Your task to perform on an android device: change text size in settings app Image 0: 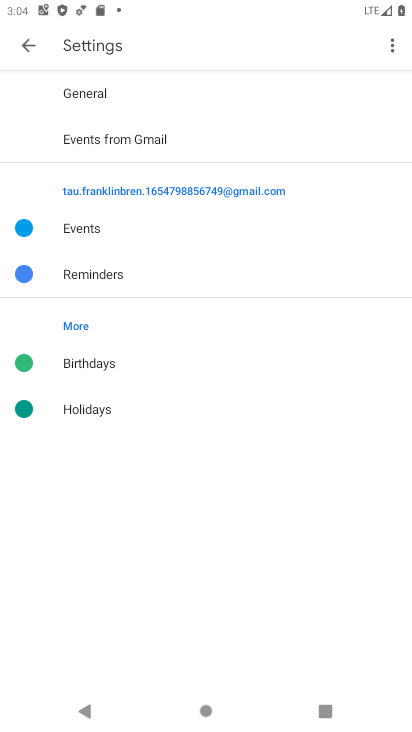
Step 0: press home button
Your task to perform on an android device: change text size in settings app Image 1: 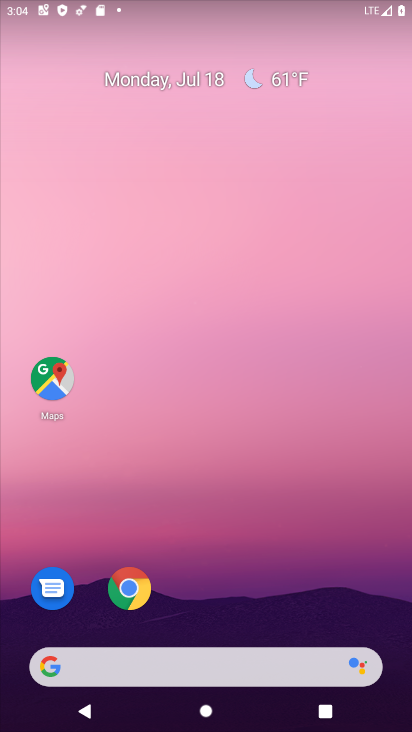
Step 1: drag from (294, 588) to (267, 175)
Your task to perform on an android device: change text size in settings app Image 2: 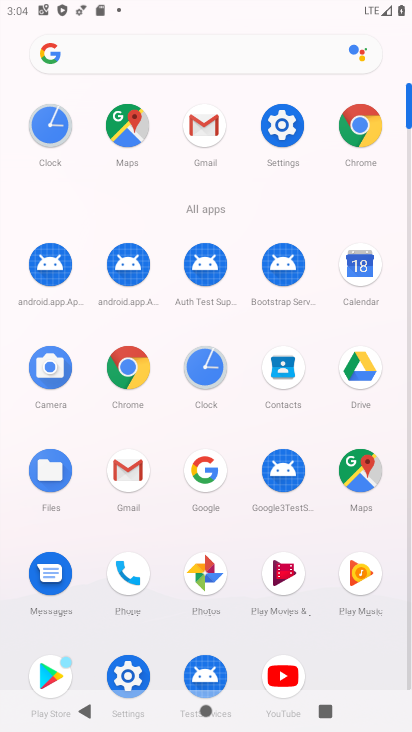
Step 2: click (299, 138)
Your task to perform on an android device: change text size in settings app Image 3: 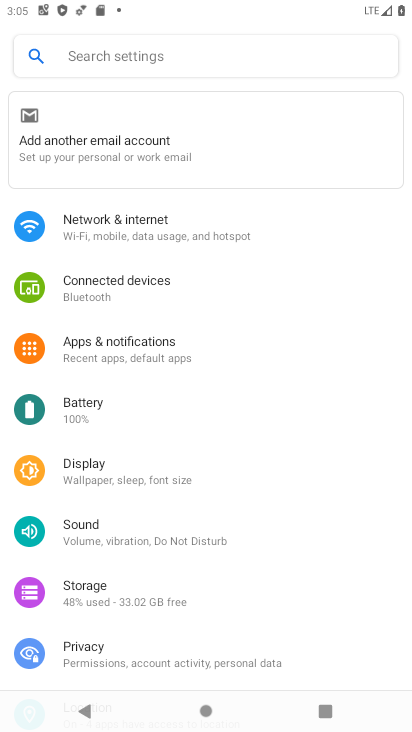
Step 3: click (219, 481)
Your task to perform on an android device: change text size in settings app Image 4: 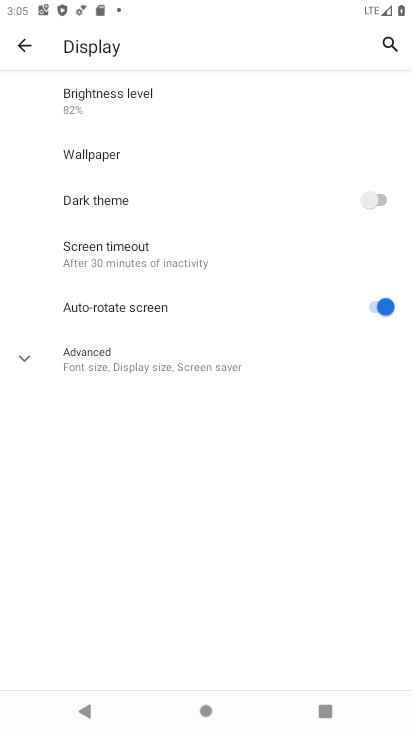
Step 4: click (178, 371)
Your task to perform on an android device: change text size in settings app Image 5: 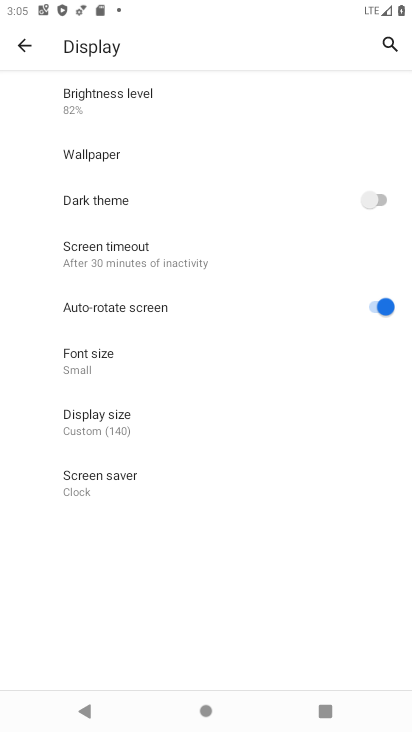
Step 5: click (130, 374)
Your task to perform on an android device: change text size in settings app Image 6: 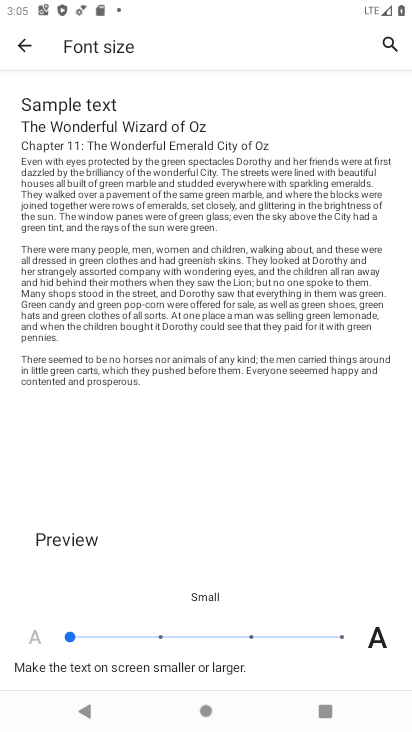
Step 6: click (341, 624)
Your task to perform on an android device: change text size in settings app Image 7: 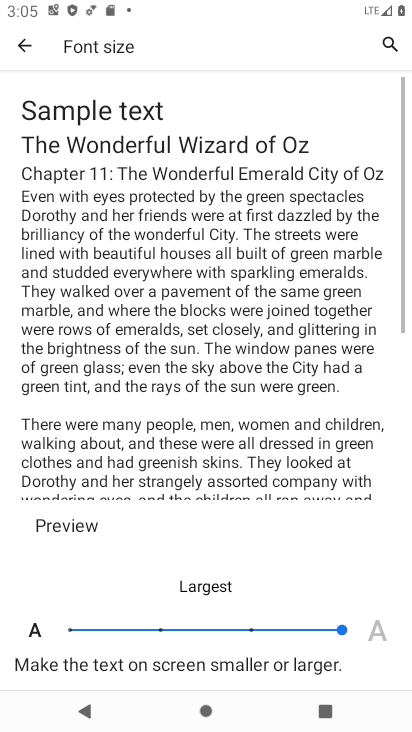
Step 7: task complete